Your task to perform on an android device: add a label to a message in the gmail app Image 0: 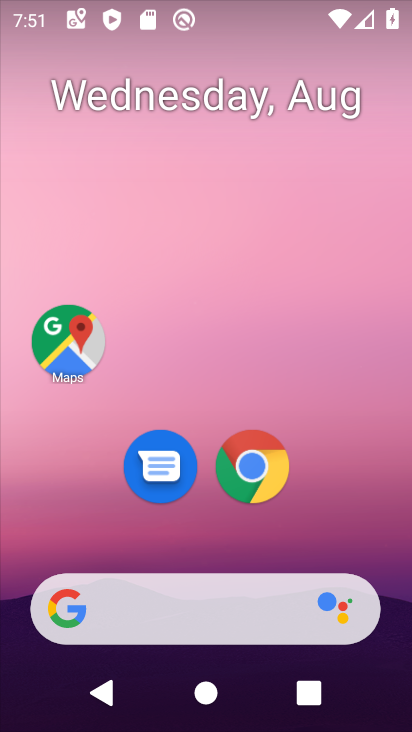
Step 0: drag from (355, 485) to (341, 80)
Your task to perform on an android device: add a label to a message in the gmail app Image 1: 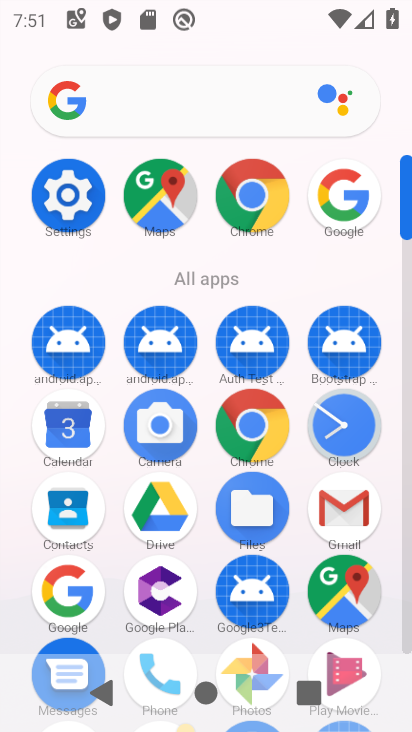
Step 1: click (340, 507)
Your task to perform on an android device: add a label to a message in the gmail app Image 2: 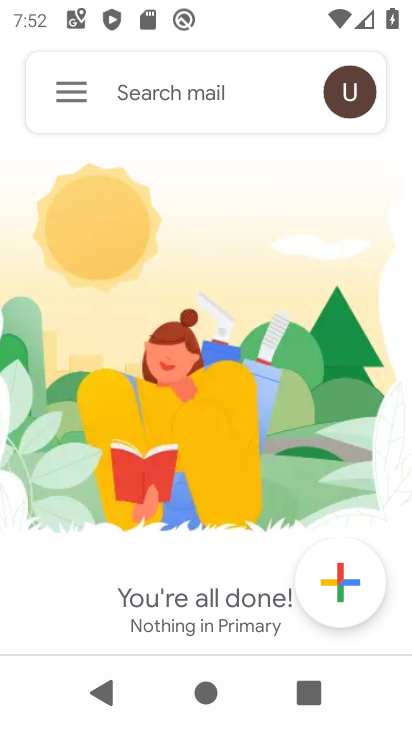
Step 2: click (71, 99)
Your task to perform on an android device: add a label to a message in the gmail app Image 3: 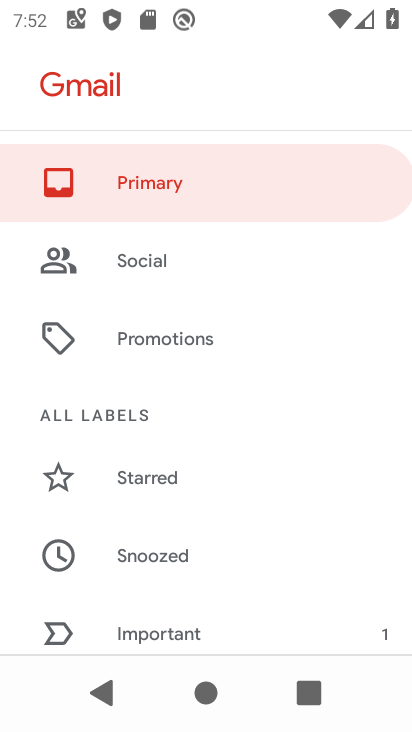
Step 3: drag from (165, 536) to (208, 211)
Your task to perform on an android device: add a label to a message in the gmail app Image 4: 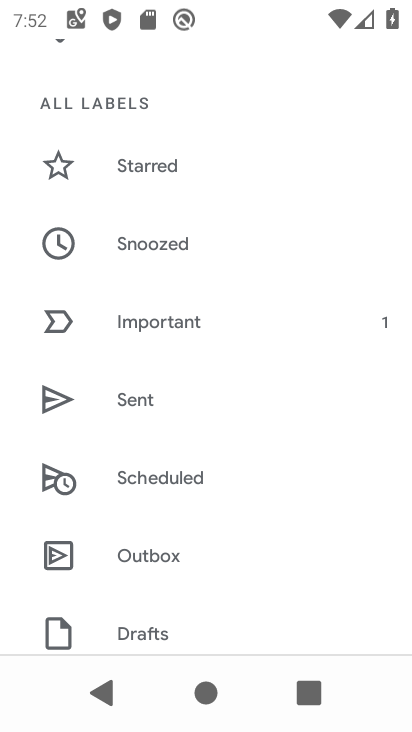
Step 4: drag from (140, 528) to (237, 250)
Your task to perform on an android device: add a label to a message in the gmail app Image 5: 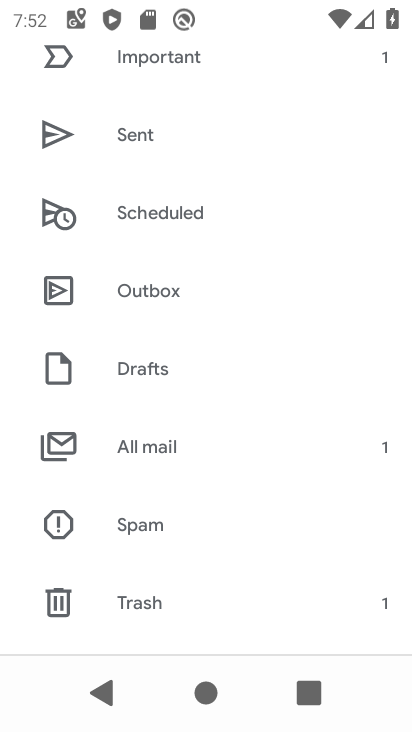
Step 5: click (164, 451)
Your task to perform on an android device: add a label to a message in the gmail app Image 6: 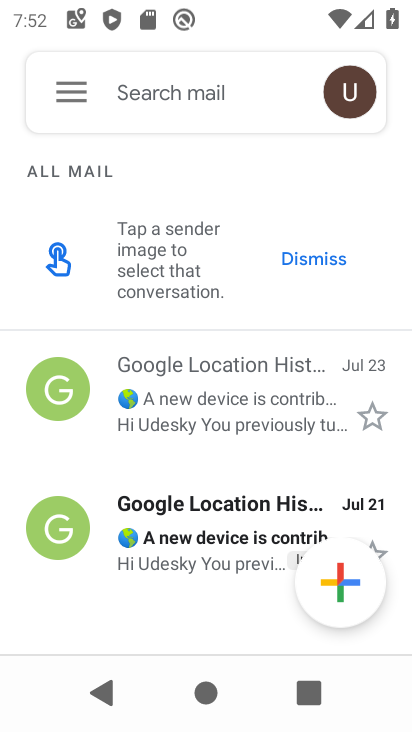
Step 6: click (261, 375)
Your task to perform on an android device: add a label to a message in the gmail app Image 7: 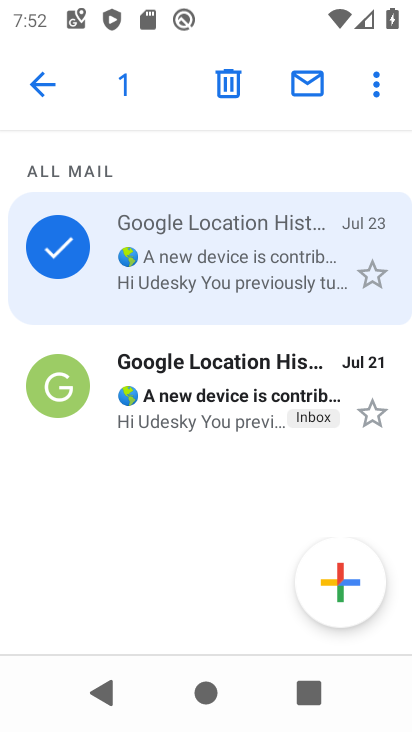
Step 7: click (380, 82)
Your task to perform on an android device: add a label to a message in the gmail app Image 8: 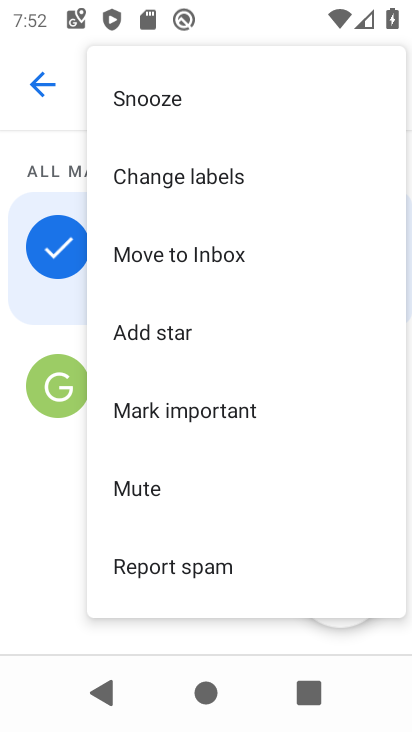
Step 8: click (8, 465)
Your task to perform on an android device: add a label to a message in the gmail app Image 9: 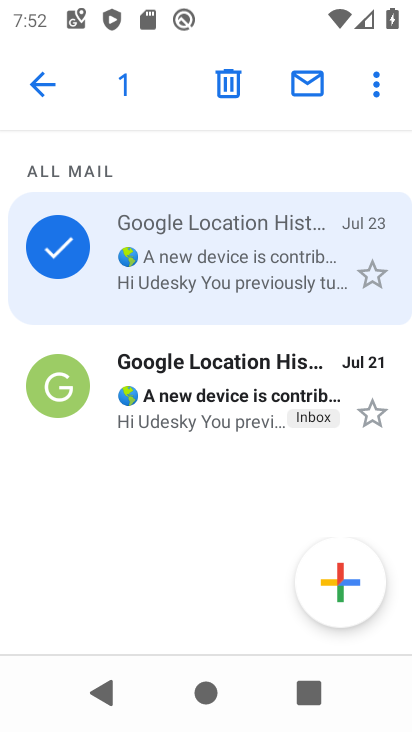
Step 9: click (143, 273)
Your task to perform on an android device: add a label to a message in the gmail app Image 10: 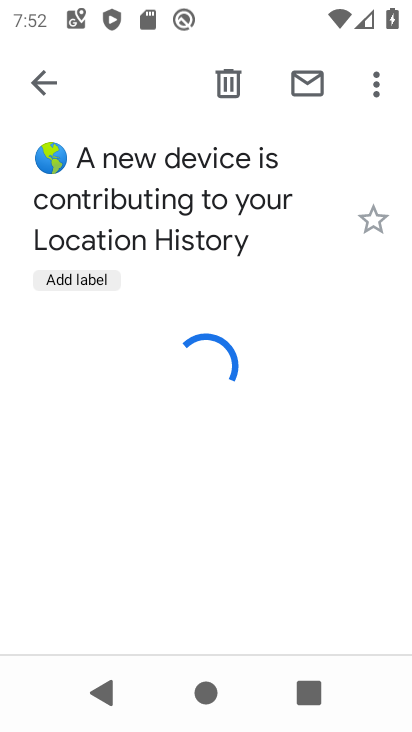
Step 10: click (42, 90)
Your task to perform on an android device: add a label to a message in the gmail app Image 11: 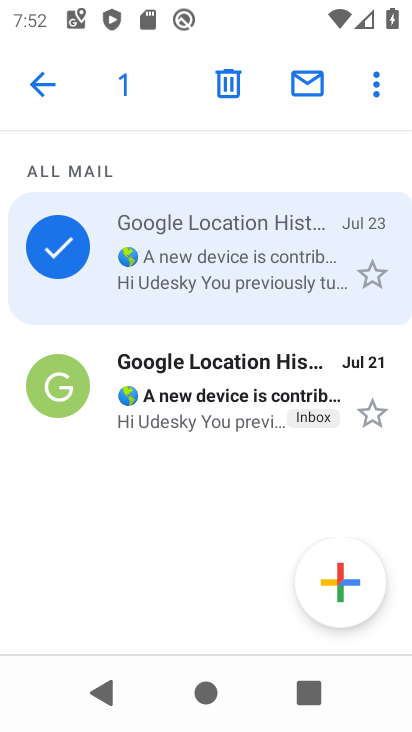
Step 11: click (235, 388)
Your task to perform on an android device: add a label to a message in the gmail app Image 12: 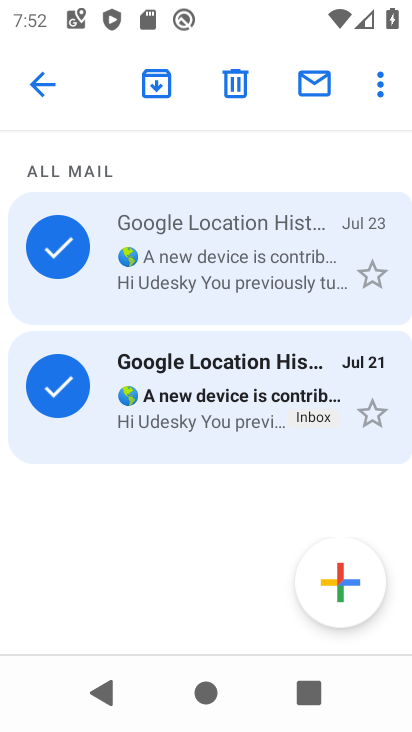
Step 12: click (51, 235)
Your task to perform on an android device: add a label to a message in the gmail app Image 13: 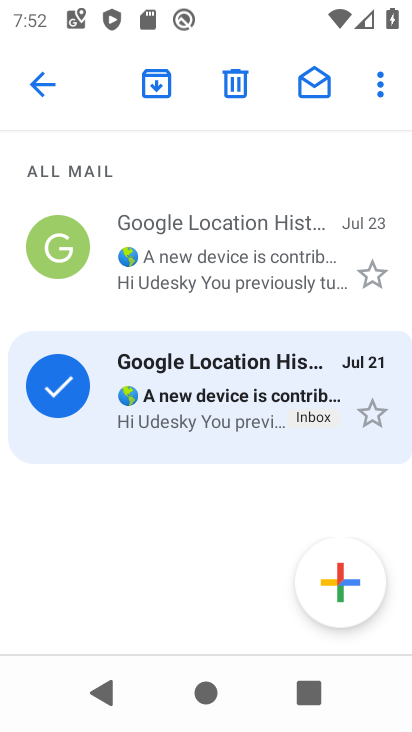
Step 13: click (382, 71)
Your task to perform on an android device: add a label to a message in the gmail app Image 14: 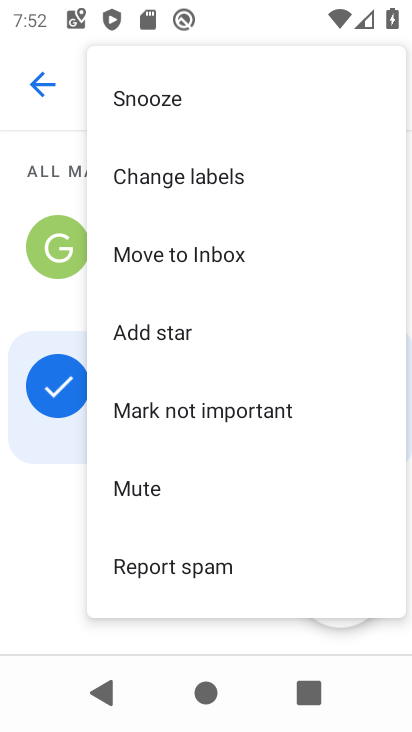
Step 14: task complete